Your task to perform on an android device: allow cookies in the chrome app Image 0: 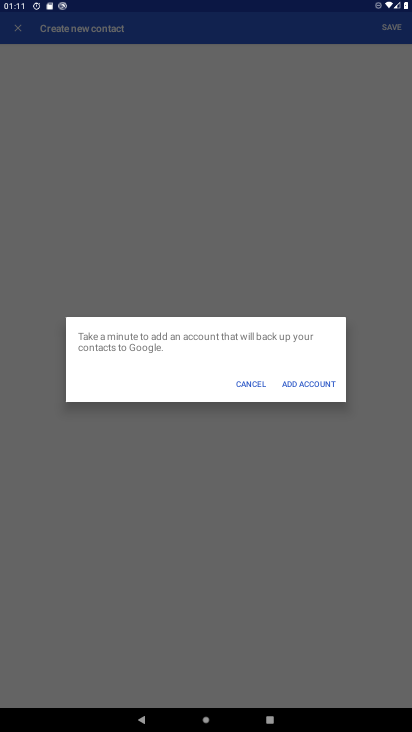
Step 0: click (249, 385)
Your task to perform on an android device: allow cookies in the chrome app Image 1: 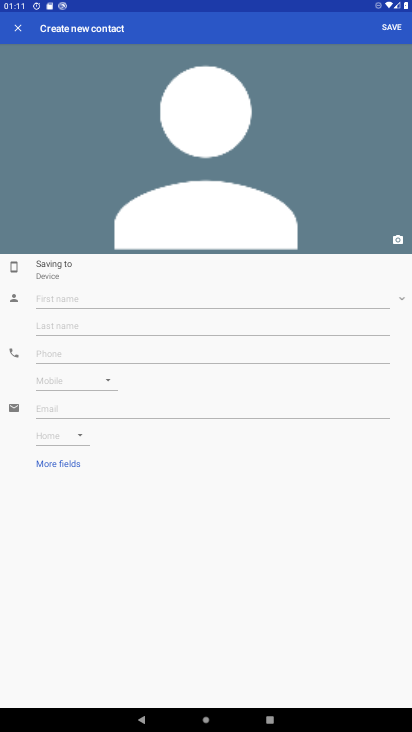
Step 1: press home button
Your task to perform on an android device: allow cookies in the chrome app Image 2: 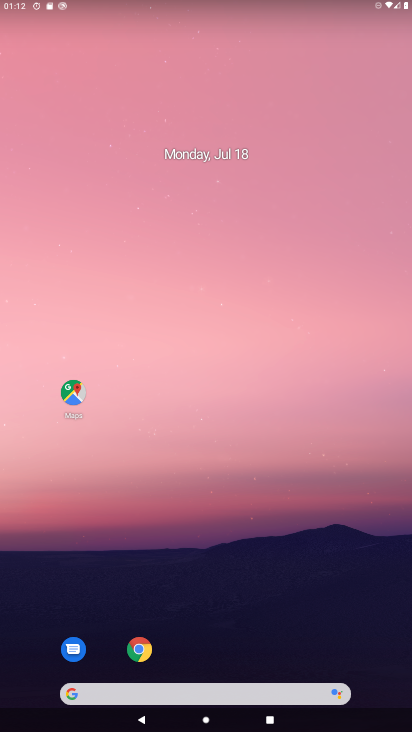
Step 2: click (152, 649)
Your task to perform on an android device: allow cookies in the chrome app Image 3: 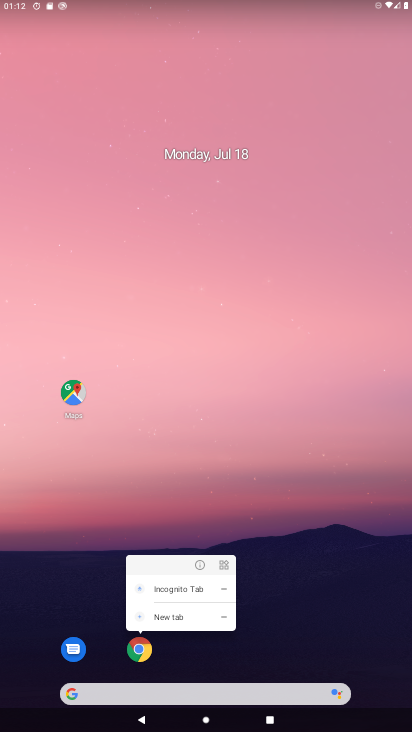
Step 3: click (148, 648)
Your task to perform on an android device: allow cookies in the chrome app Image 4: 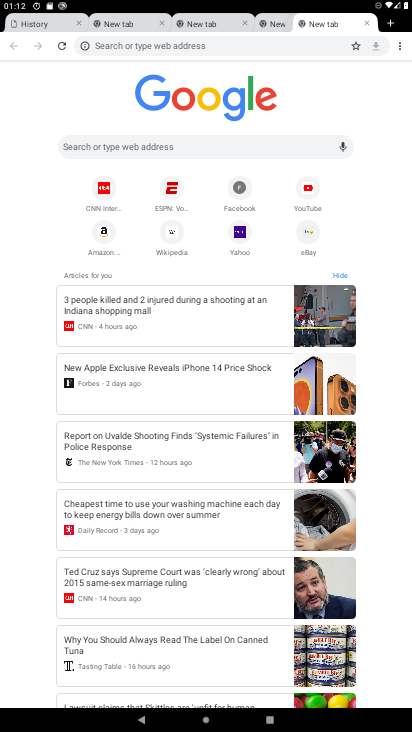
Step 4: click (402, 44)
Your task to perform on an android device: allow cookies in the chrome app Image 5: 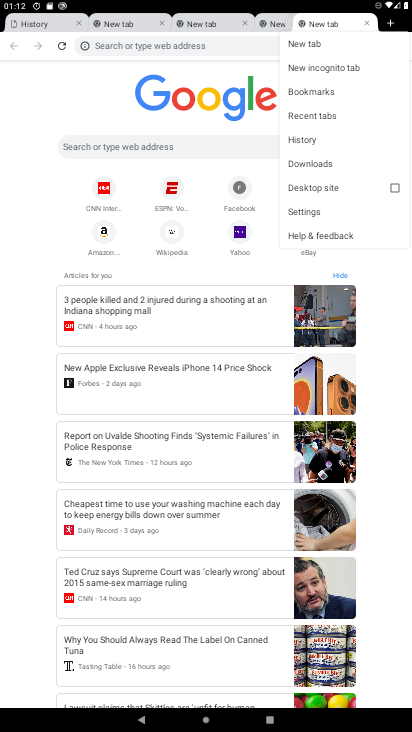
Step 5: click (311, 207)
Your task to perform on an android device: allow cookies in the chrome app Image 6: 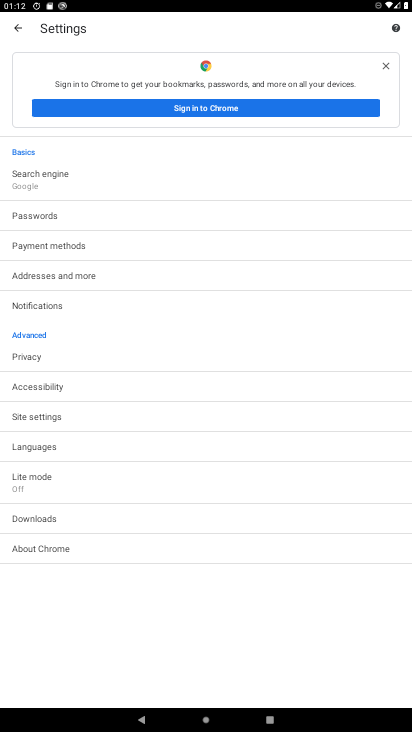
Step 6: click (30, 412)
Your task to perform on an android device: allow cookies in the chrome app Image 7: 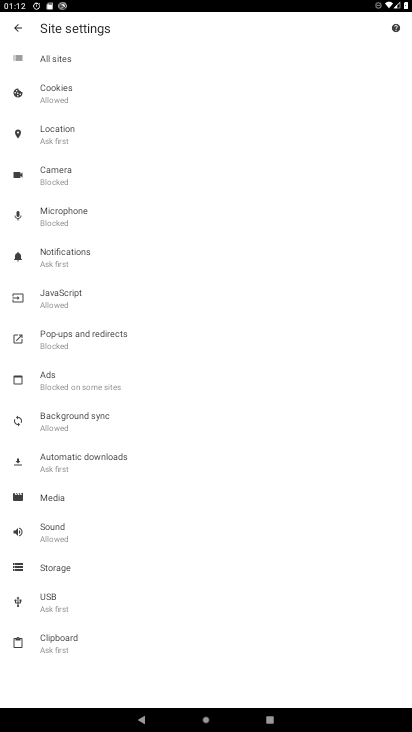
Step 7: click (65, 84)
Your task to perform on an android device: allow cookies in the chrome app Image 8: 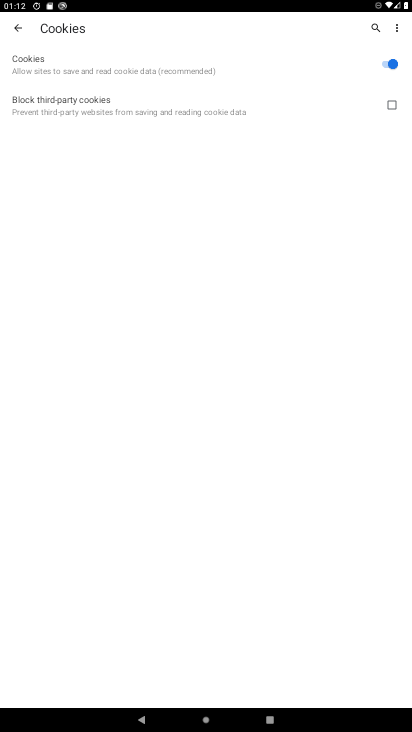
Step 8: task complete